Your task to perform on an android device: Go to Google Image 0: 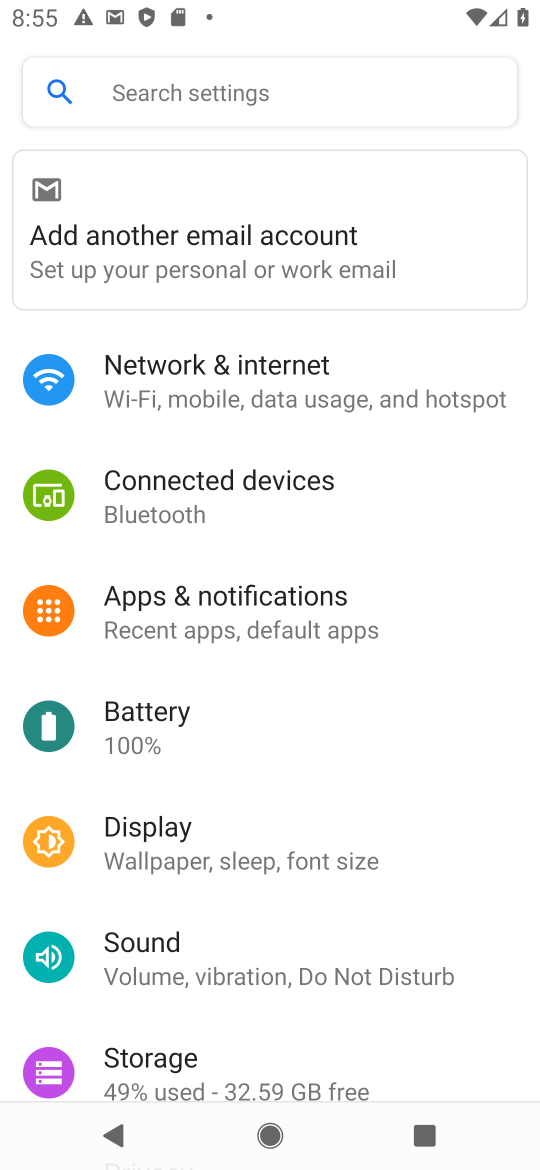
Step 0: press home button
Your task to perform on an android device: Go to Google Image 1: 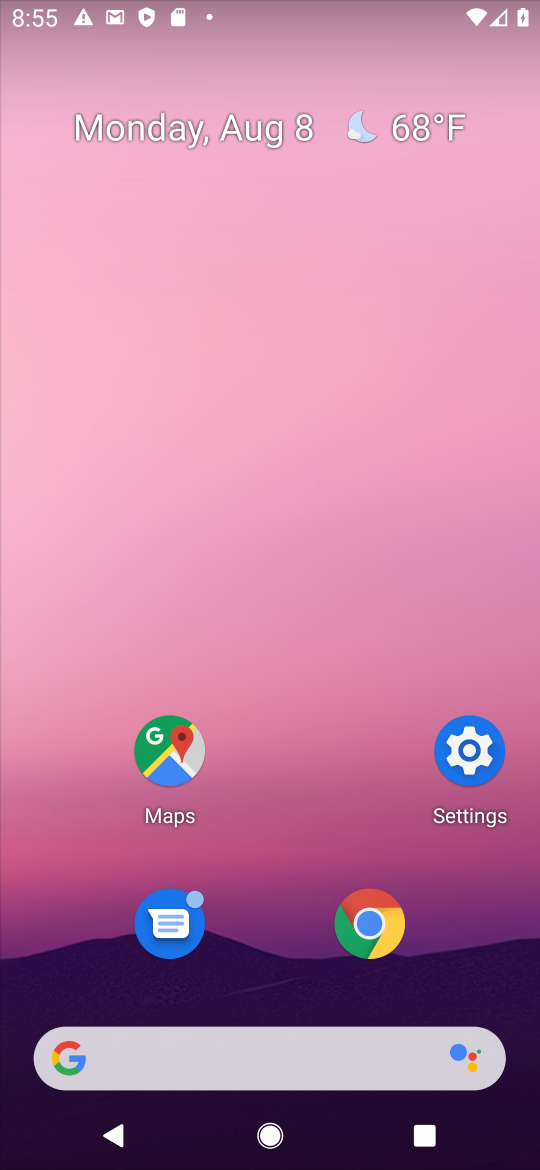
Step 1: drag from (305, 821) to (375, 42)
Your task to perform on an android device: Go to Google Image 2: 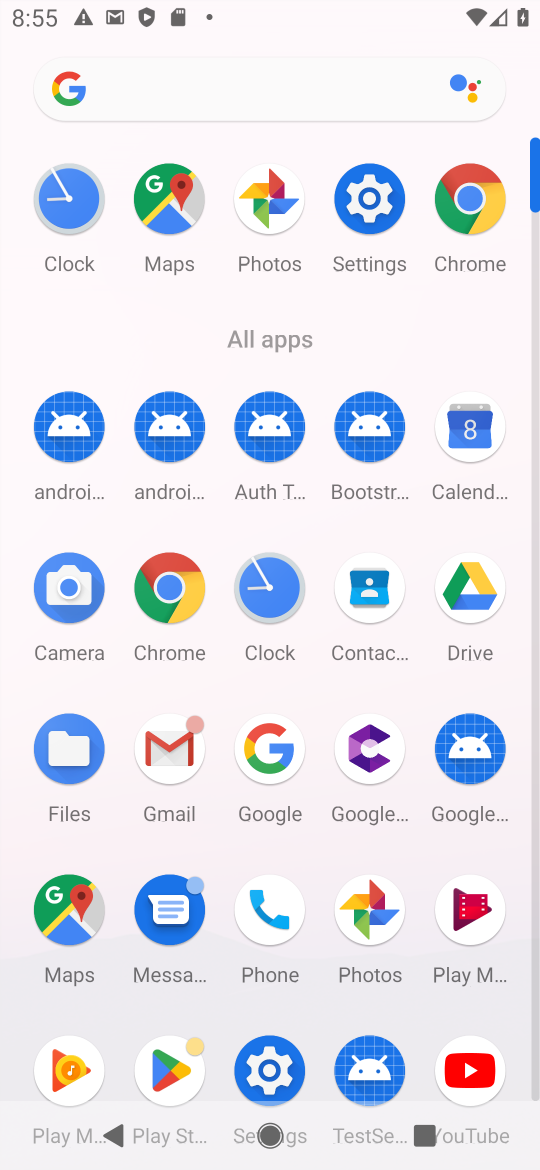
Step 2: click (277, 740)
Your task to perform on an android device: Go to Google Image 3: 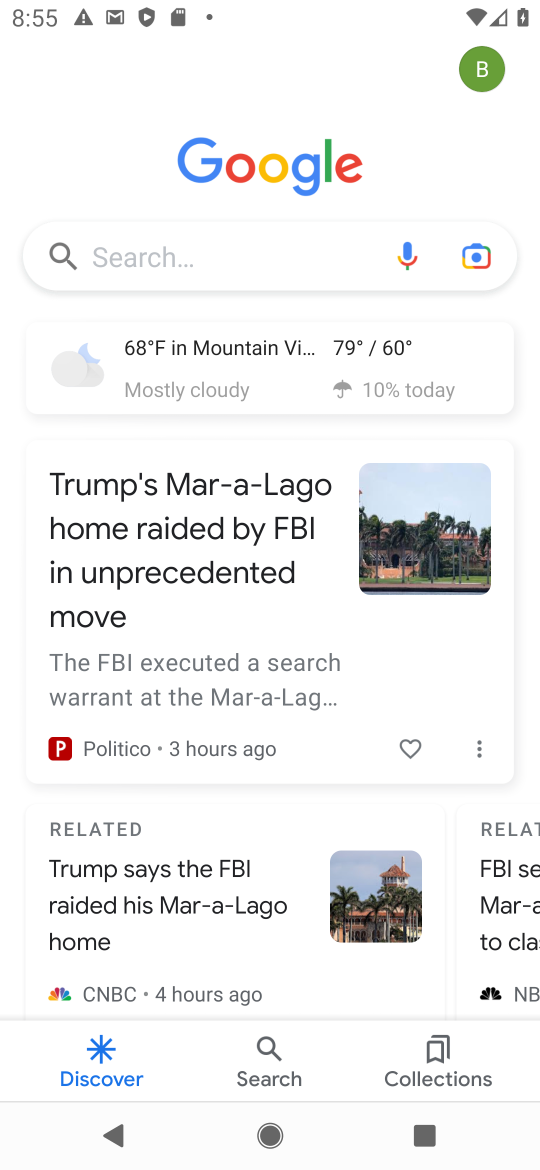
Step 3: task complete